Your task to perform on an android device: toggle pop-ups in chrome Image 0: 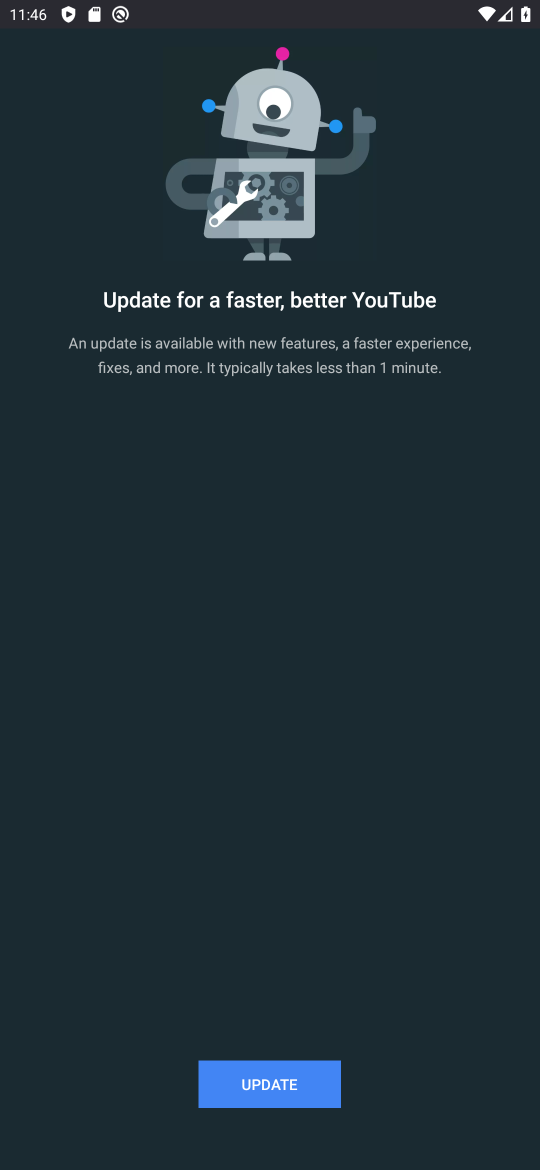
Step 0: press home button
Your task to perform on an android device: toggle pop-ups in chrome Image 1: 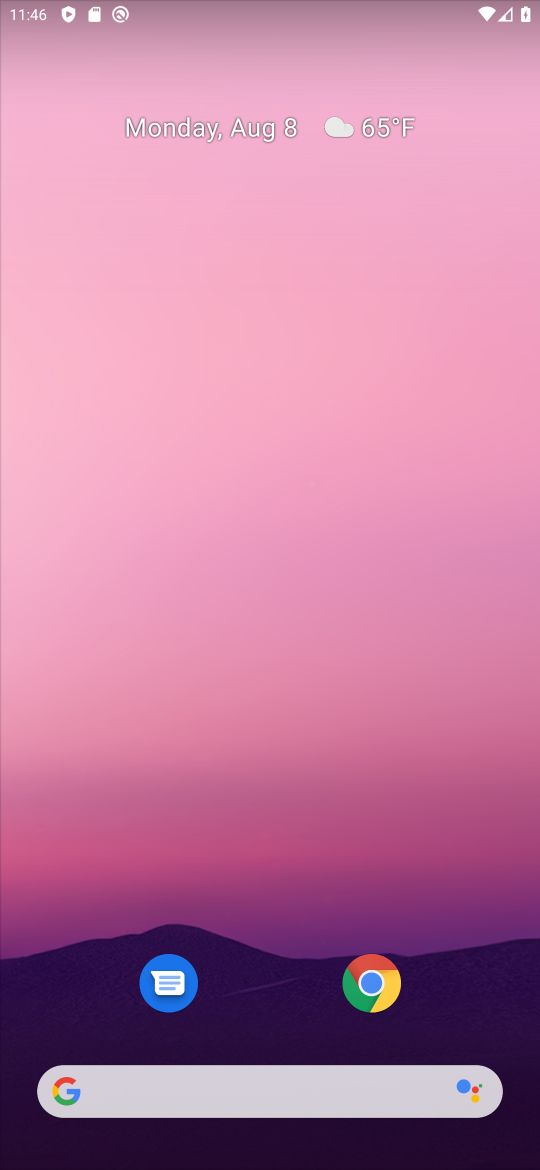
Step 1: task complete